Your task to perform on an android device: turn pop-ups off in chrome Image 0: 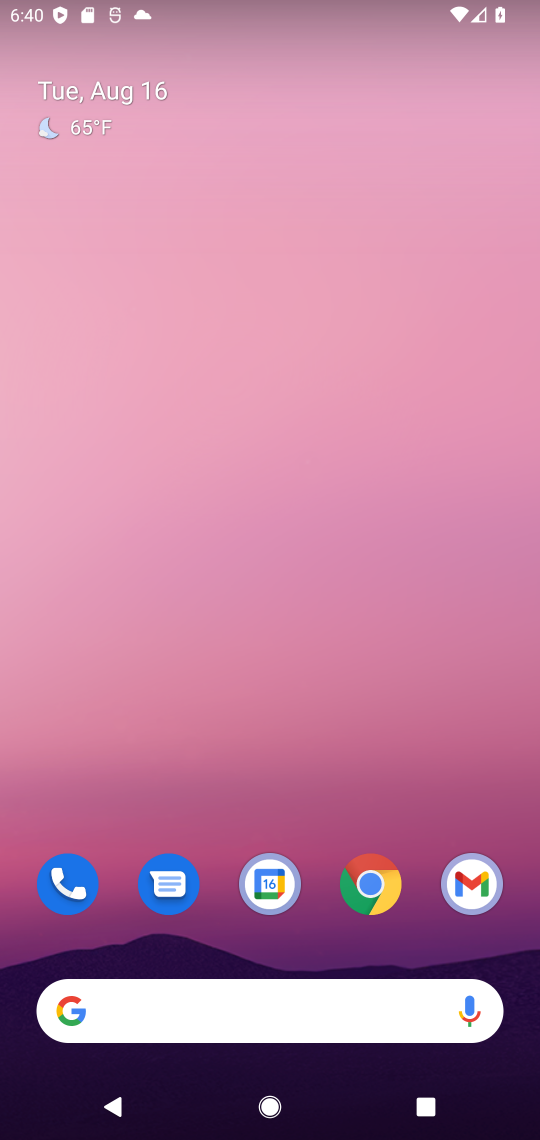
Step 0: press home button
Your task to perform on an android device: turn pop-ups off in chrome Image 1: 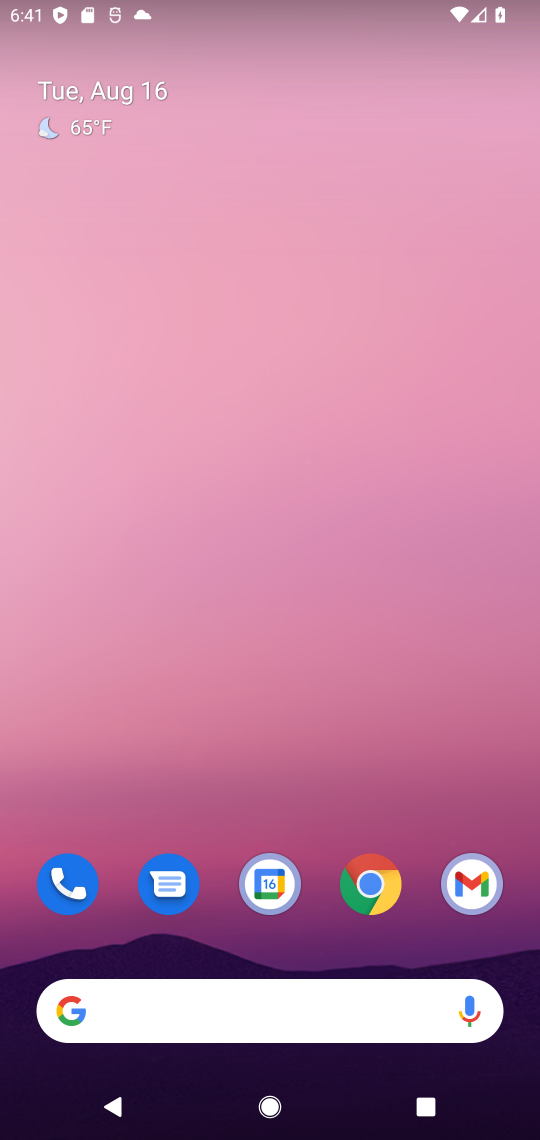
Step 1: click (366, 890)
Your task to perform on an android device: turn pop-ups off in chrome Image 2: 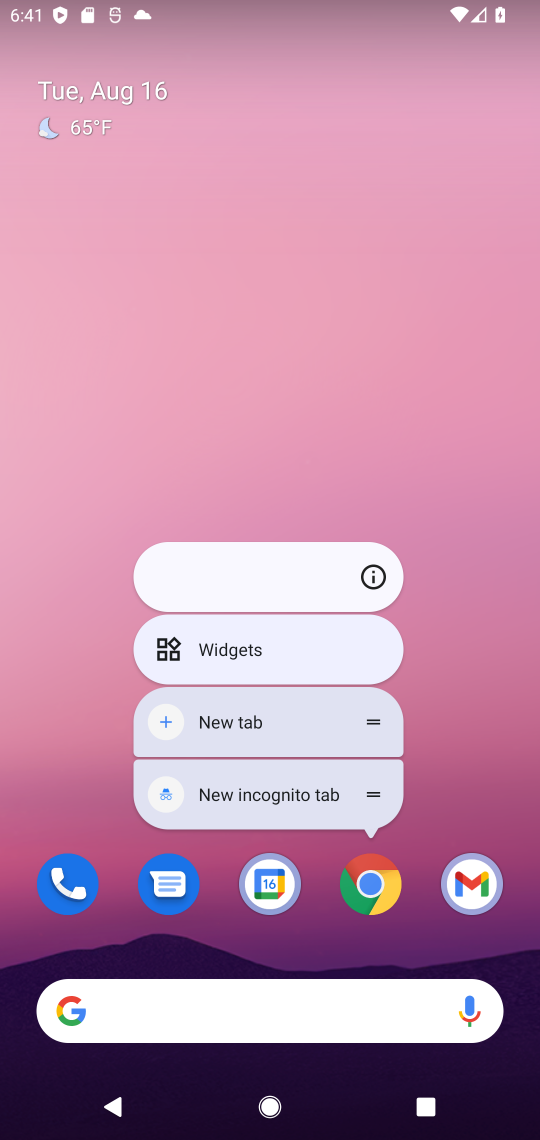
Step 2: click (377, 888)
Your task to perform on an android device: turn pop-ups off in chrome Image 3: 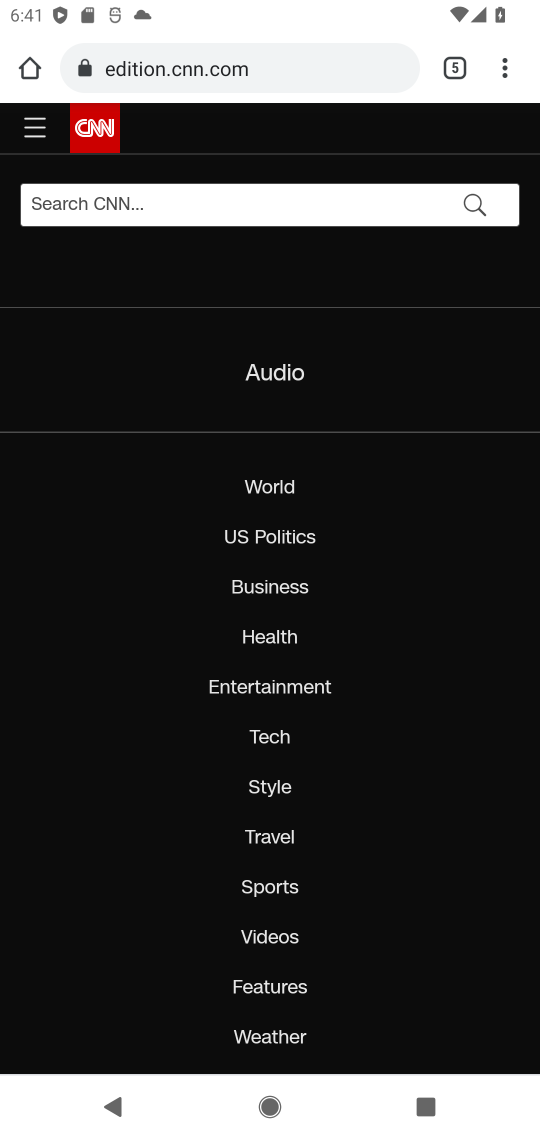
Step 3: drag from (511, 64) to (322, 836)
Your task to perform on an android device: turn pop-ups off in chrome Image 4: 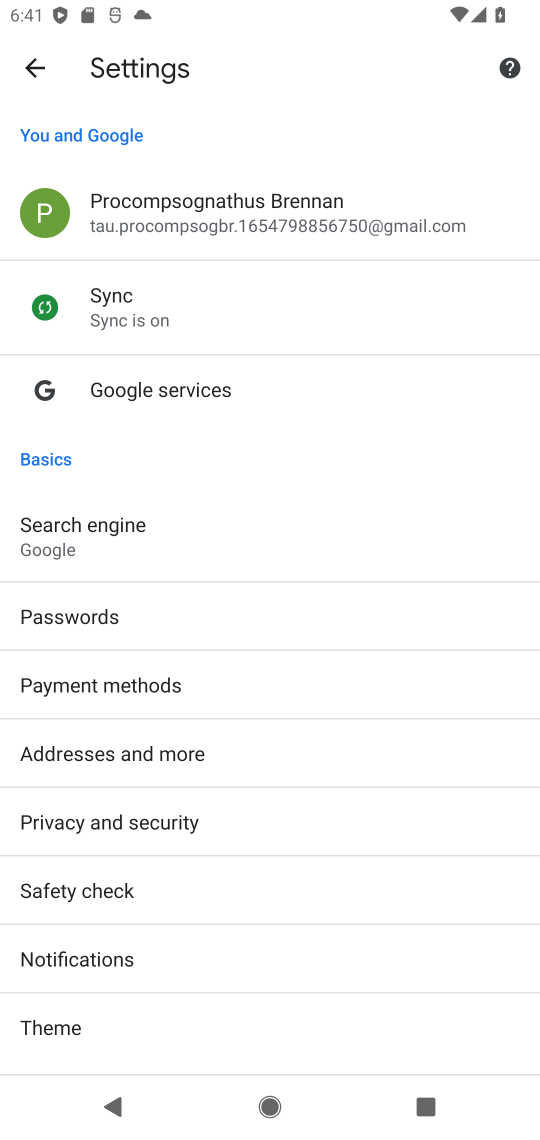
Step 4: drag from (380, 872) to (462, 404)
Your task to perform on an android device: turn pop-ups off in chrome Image 5: 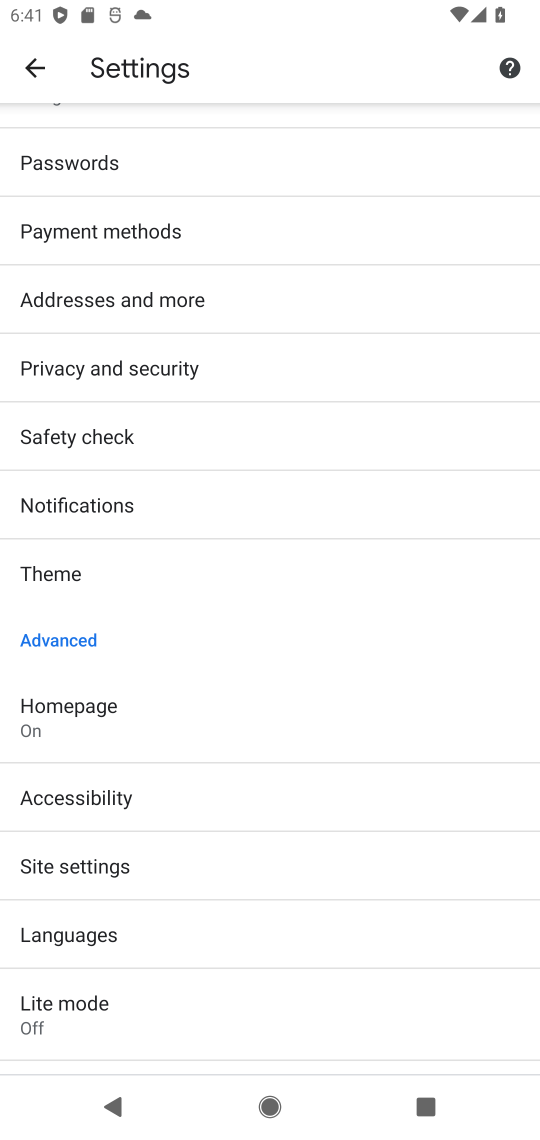
Step 5: click (71, 872)
Your task to perform on an android device: turn pop-ups off in chrome Image 6: 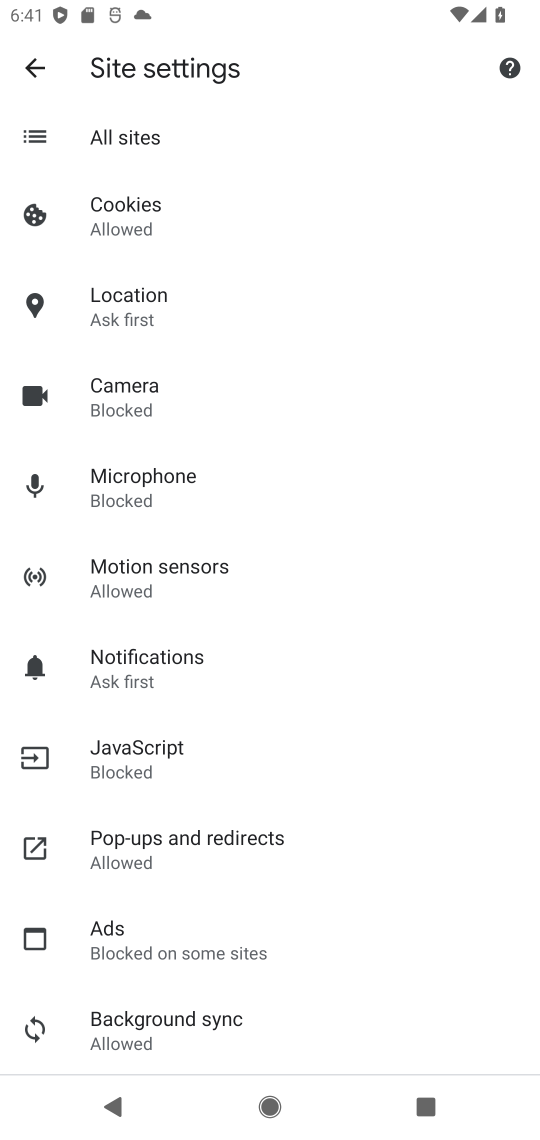
Step 6: click (174, 839)
Your task to perform on an android device: turn pop-ups off in chrome Image 7: 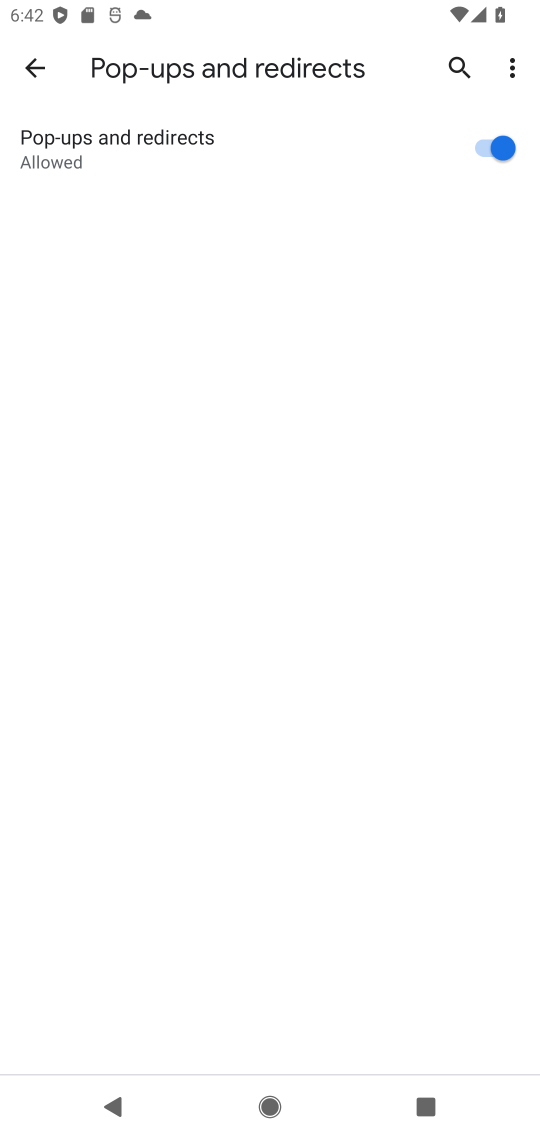
Step 7: click (500, 142)
Your task to perform on an android device: turn pop-ups off in chrome Image 8: 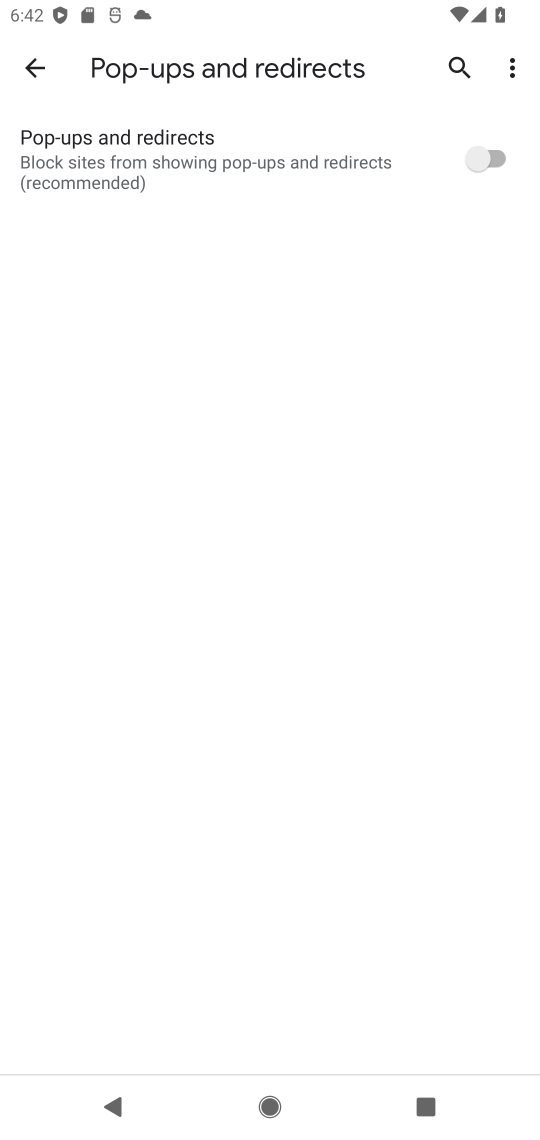
Step 8: task complete